Your task to perform on an android device: Go to location settings Image 0: 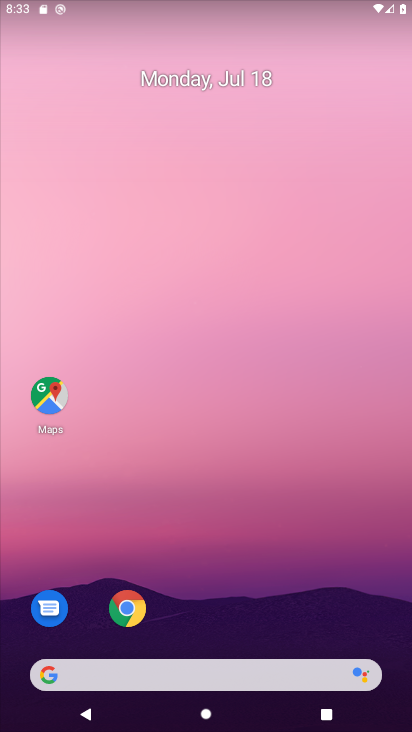
Step 0: drag from (157, 672) to (224, 121)
Your task to perform on an android device: Go to location settings Image 1: 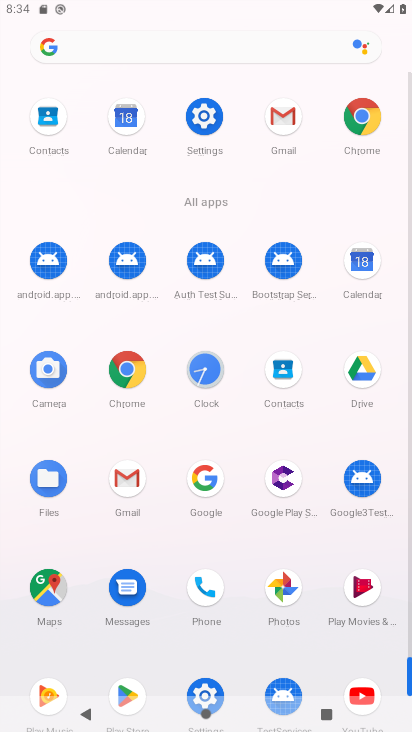
Step 1: click (204, 118)
Your task to perform on an android device: Go to location settings Image 2: 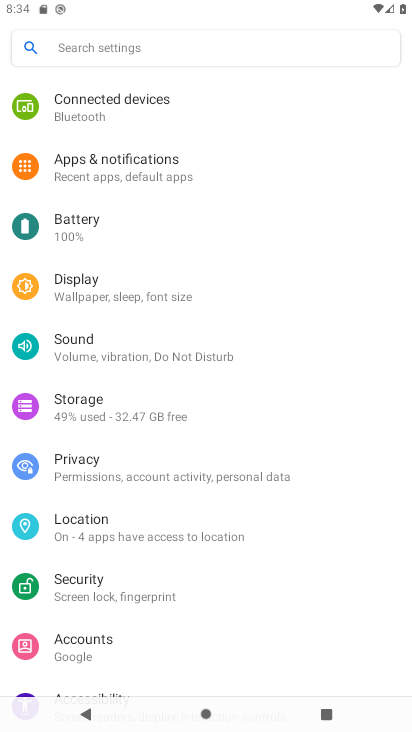
Step 2: click (84, 537)
Your task to perform on an android device: Go to location settings Image 3: 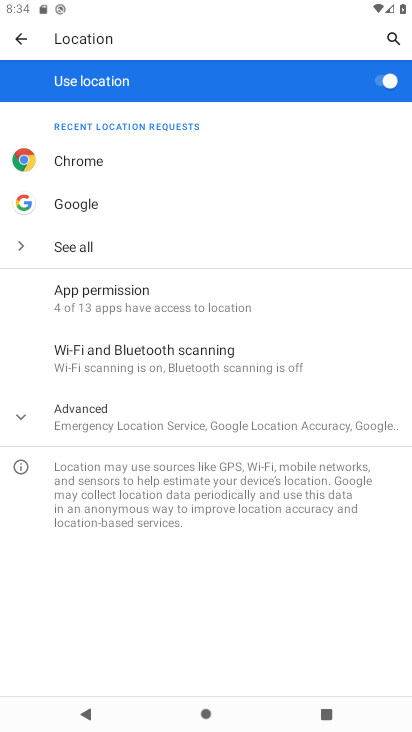
Step 3: task complete